Your task to perform on an android device: Go to Amazon Image 0: 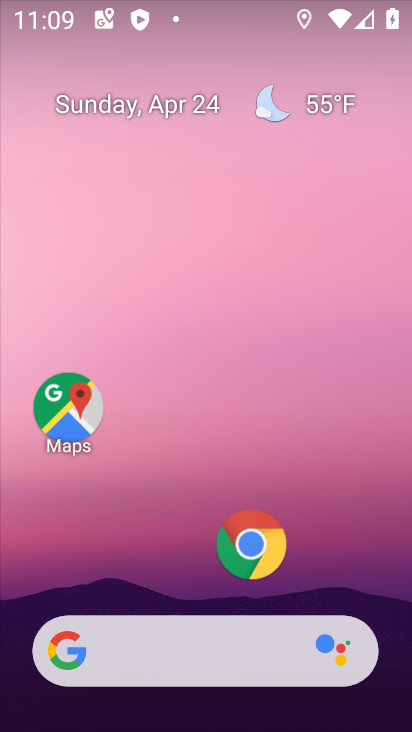
Step 0: click (254, 551)
Your task to perform on an android device: Go to Amazon Image 1: 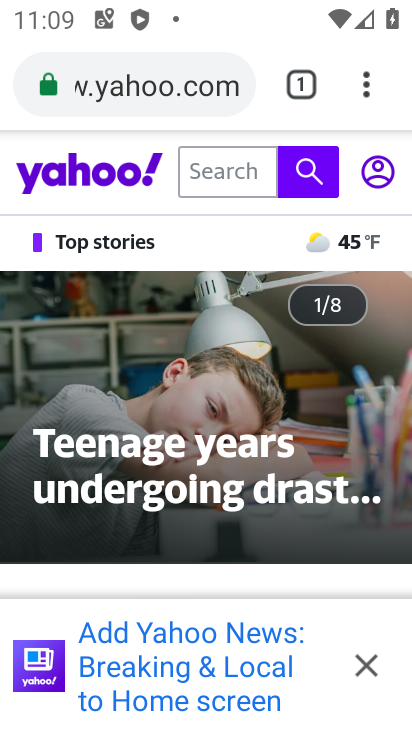
Step 1: click (302, 85)
Your task to perform on an android device: Go to Amazon Image 2: 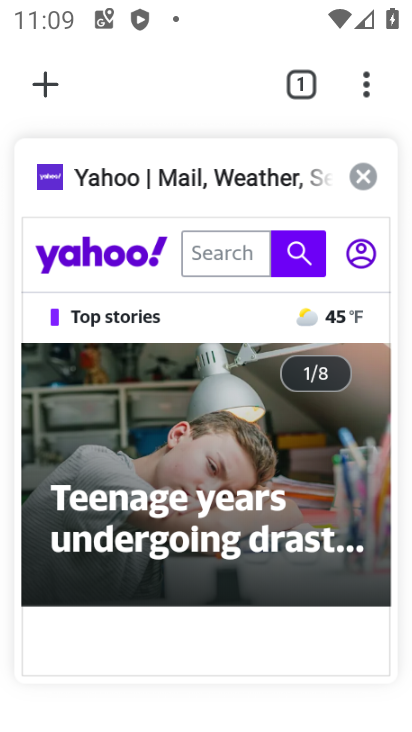
Step 2: click (45, 83)
Your task to perform on an android device: Go to Amazon Image 3: 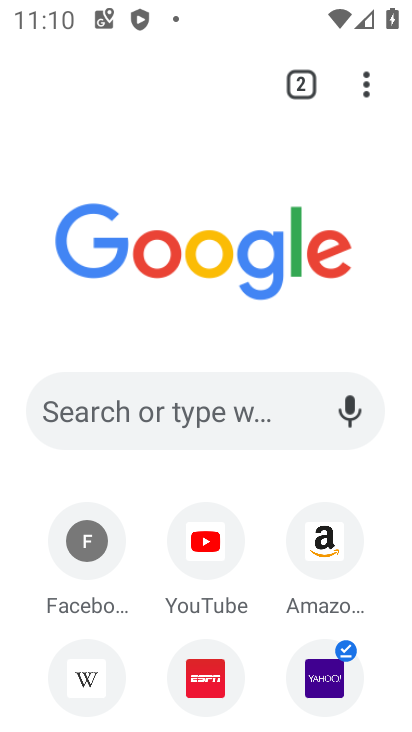
Step 3: click (336, 549)
Your task to perform on an android device: Go to Amazon Image 4: 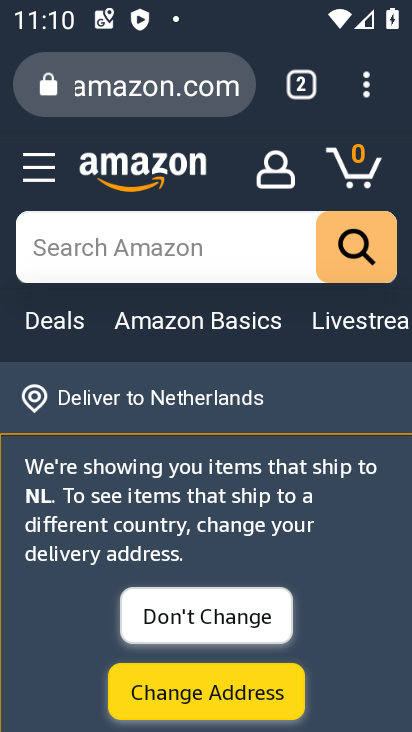
Step 4: task complete